Your task to perform on an android device: Go to eBay Image 0: 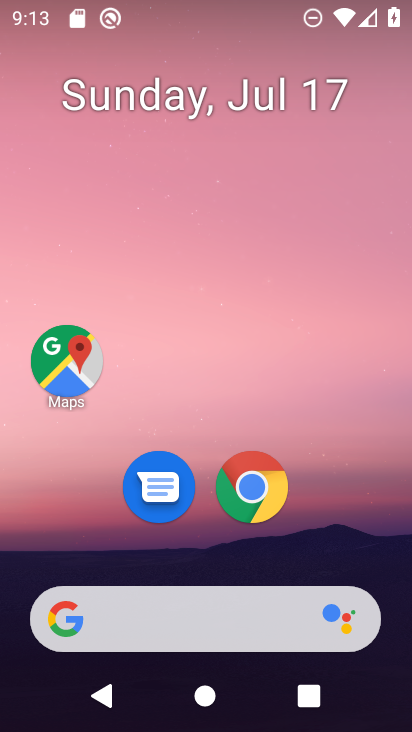
Step 0: press home button
Your task to perform on an android device: Go to eBay Image 1: 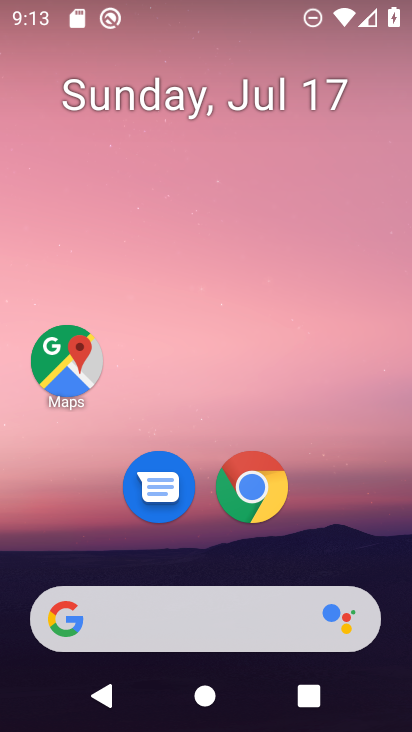
Step 1: click (72, 619)
Your task to perform on an android device: Go to eBay Image 2: 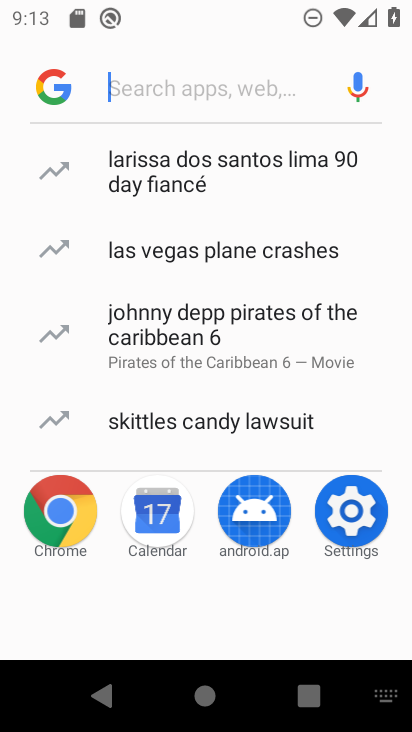
Step 2: type "eBay"
Your task to perform on an android device: Go to eBay Image 3: 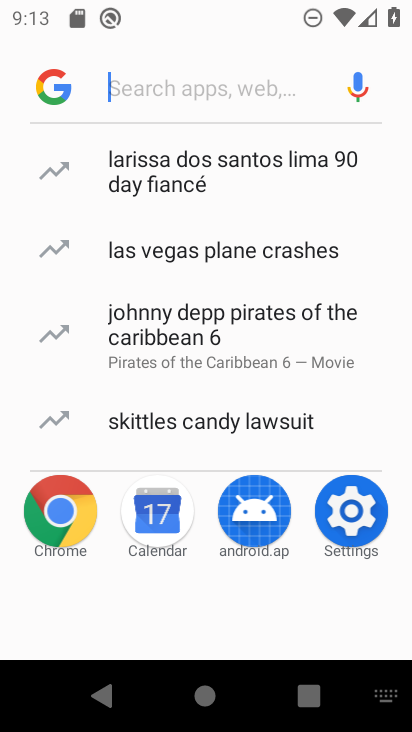
Step 3: click (180, 85)
Your task to perform on an android device: Go to eBay Image 4: 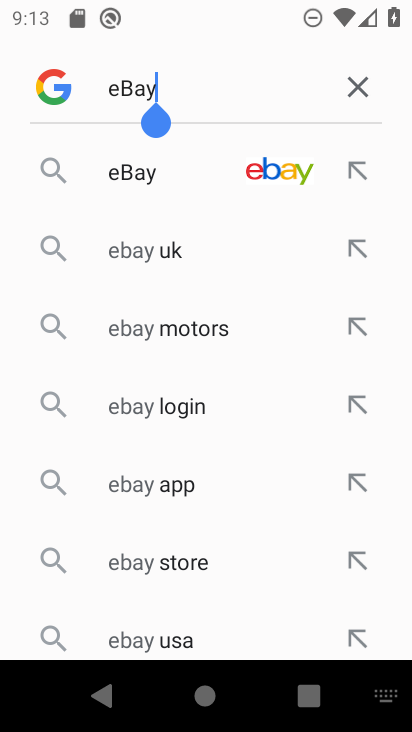
Step 4: click (267, 181)
Your task to perform on an android device: Go to eBay Image 5: 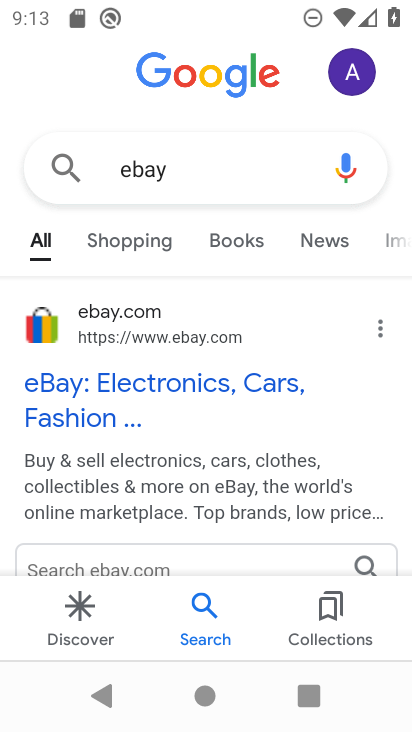
Step 5: click (43, 398)
Your task to perform on an android device: Go to eBay Image 6: 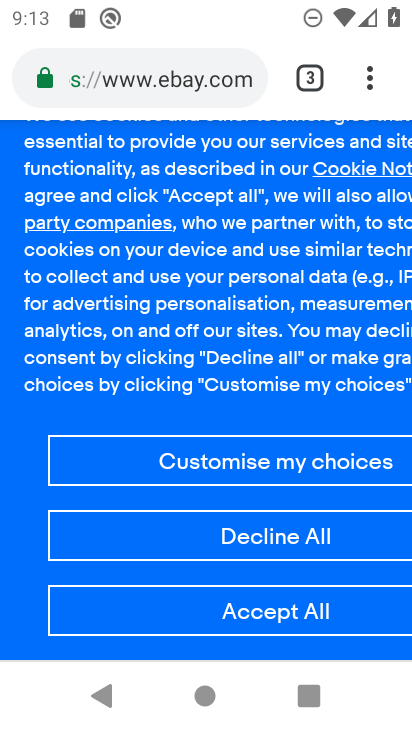
Step 6: click (299, 624)
Your task to perform on an android device: Go to eBay Image 7: 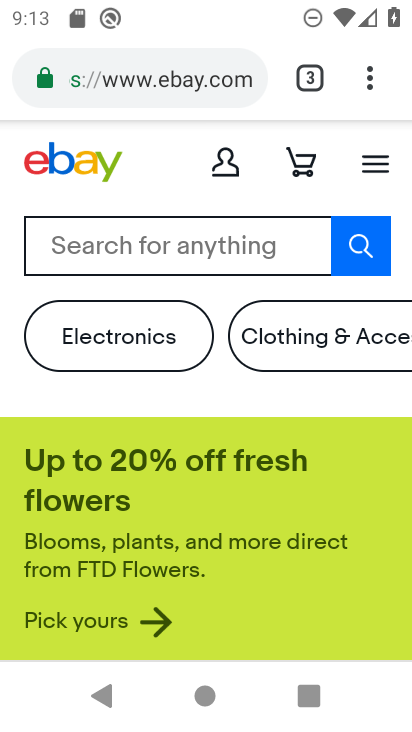
Step 7: task complete